Your task to perform on an android device: uninstall "NewsBreak: Local News & Alerts" Image 0: 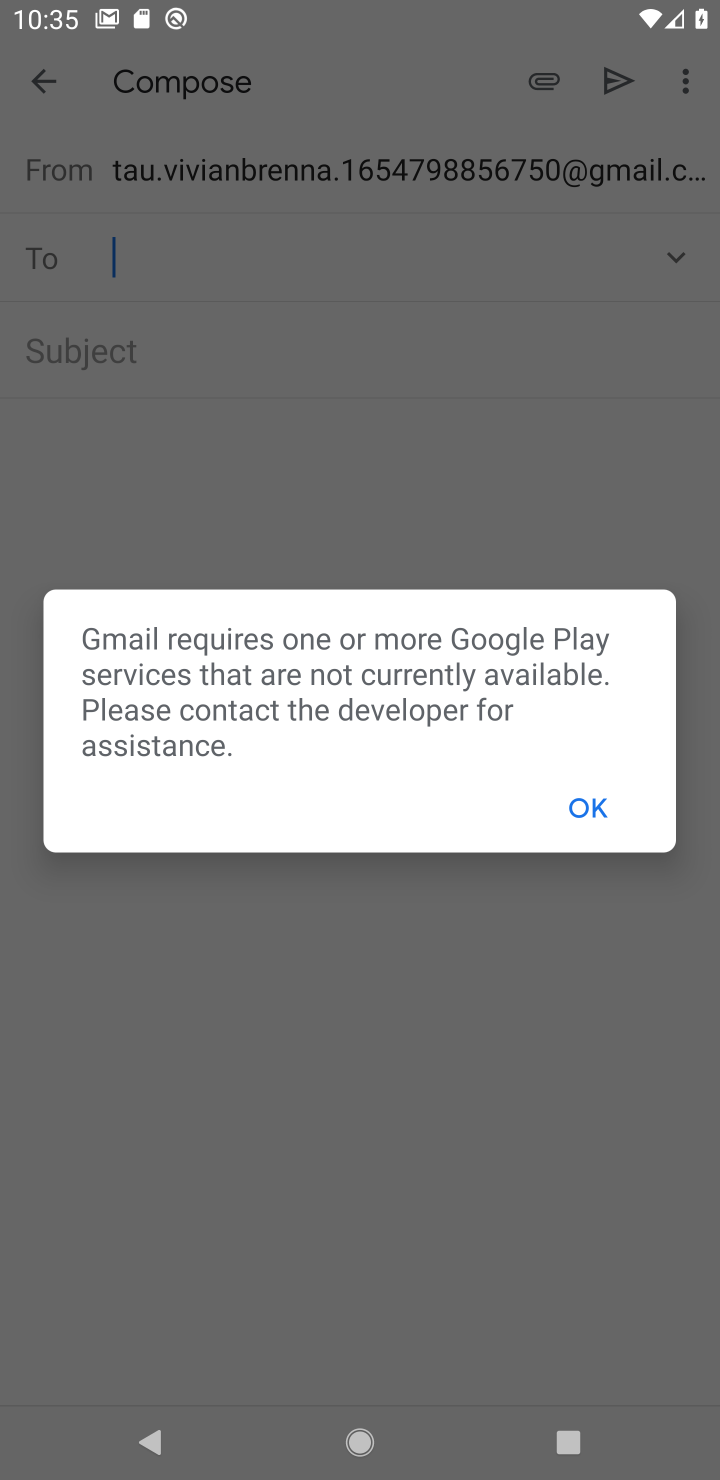
Step 0: press back button
Your task to perform on an android device: uninstall "NewsBreak: Local News & Alerts" Image 1: 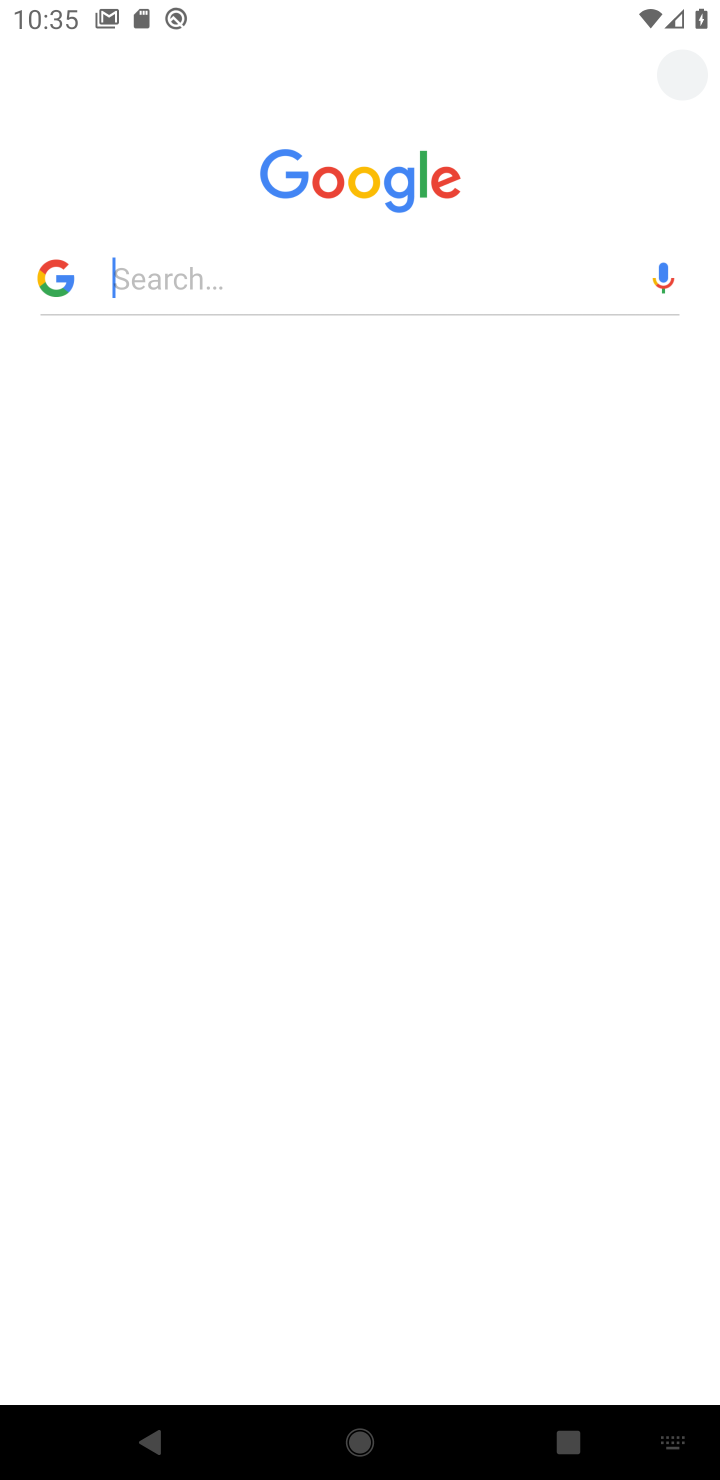
Step 1: press back button
Your task to perform on an android device: uninstall "NewsBreak: Local News & Alerts" Image 2: 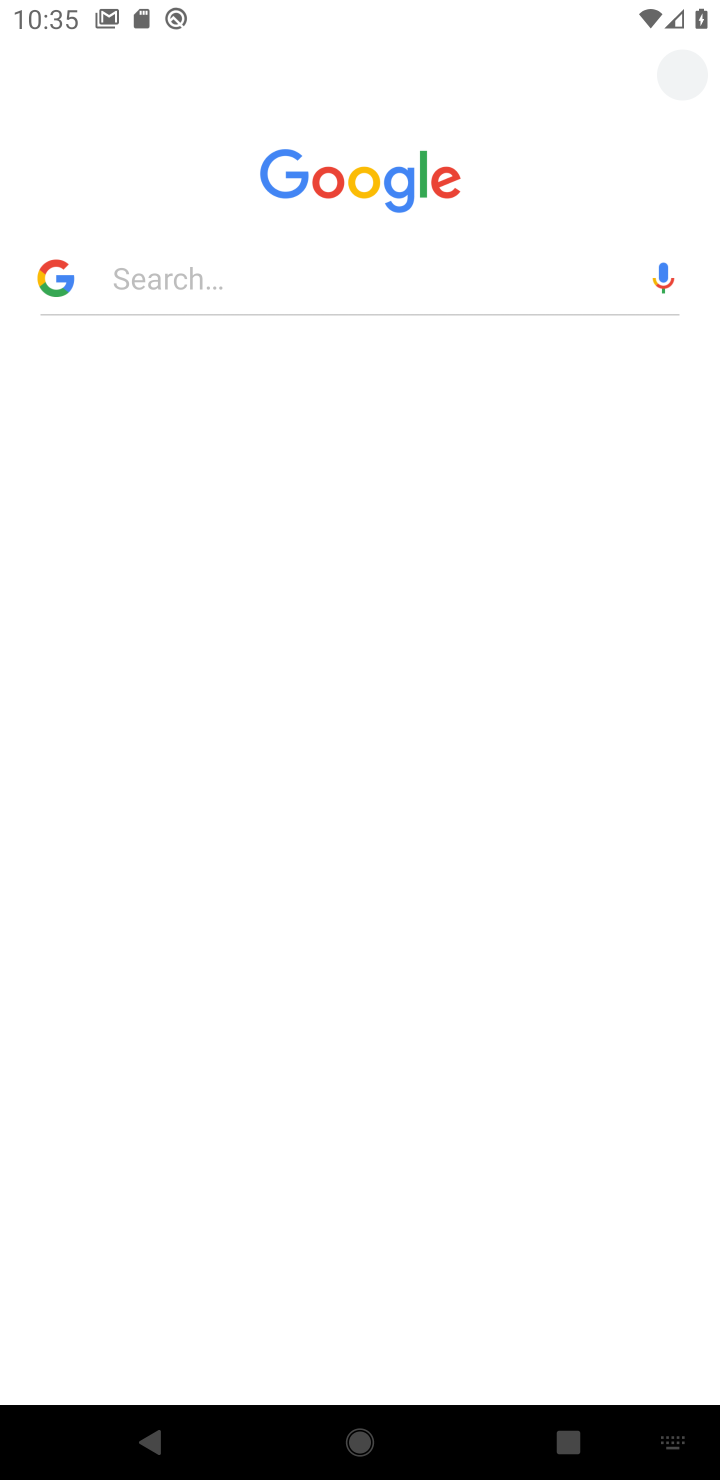
Step 2: drag from (563, 311) to (183, 271)
Your task to perform on an android device: uninstall "NewsBreak: Local News & Alerts" Image 3: 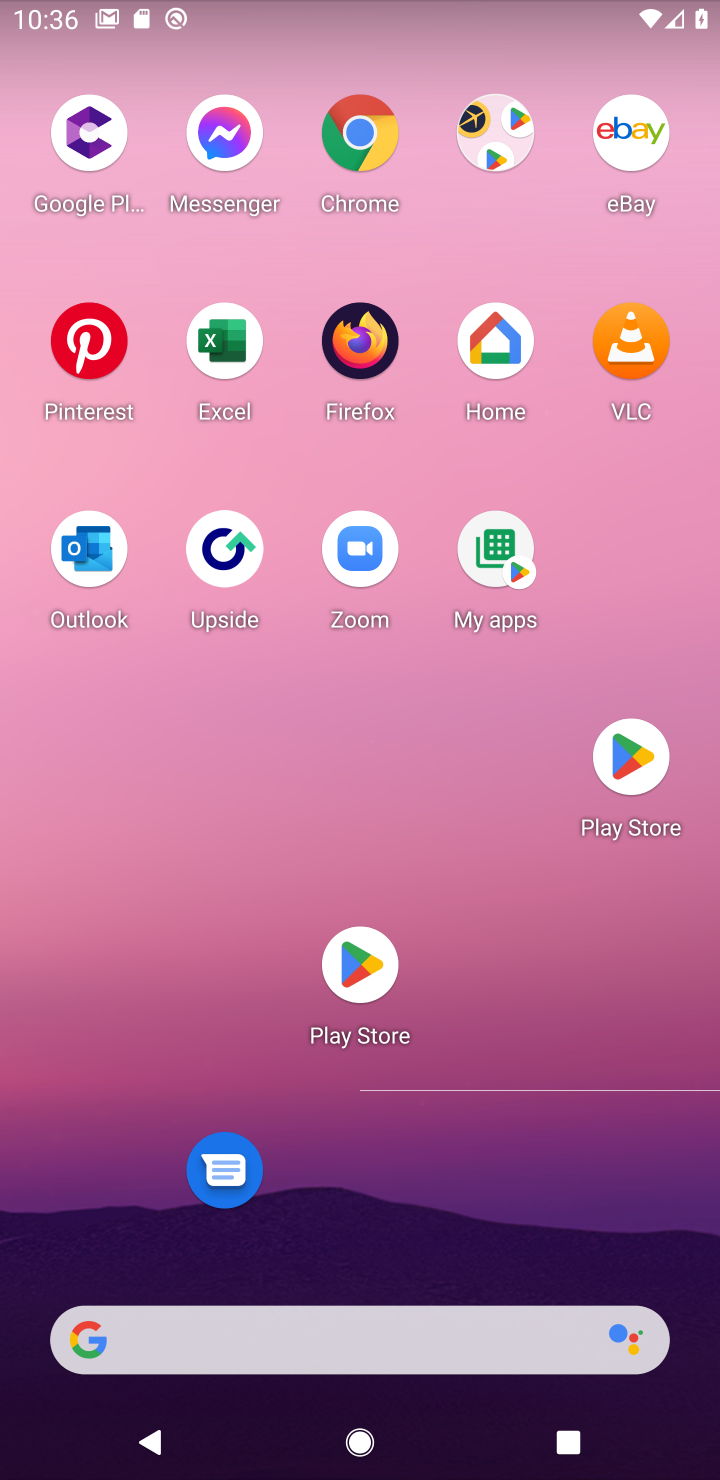
Step 3: press back button
Your task to perform on an android device: uninstall "NewsBreak: Local News & Alerts" Image 4: 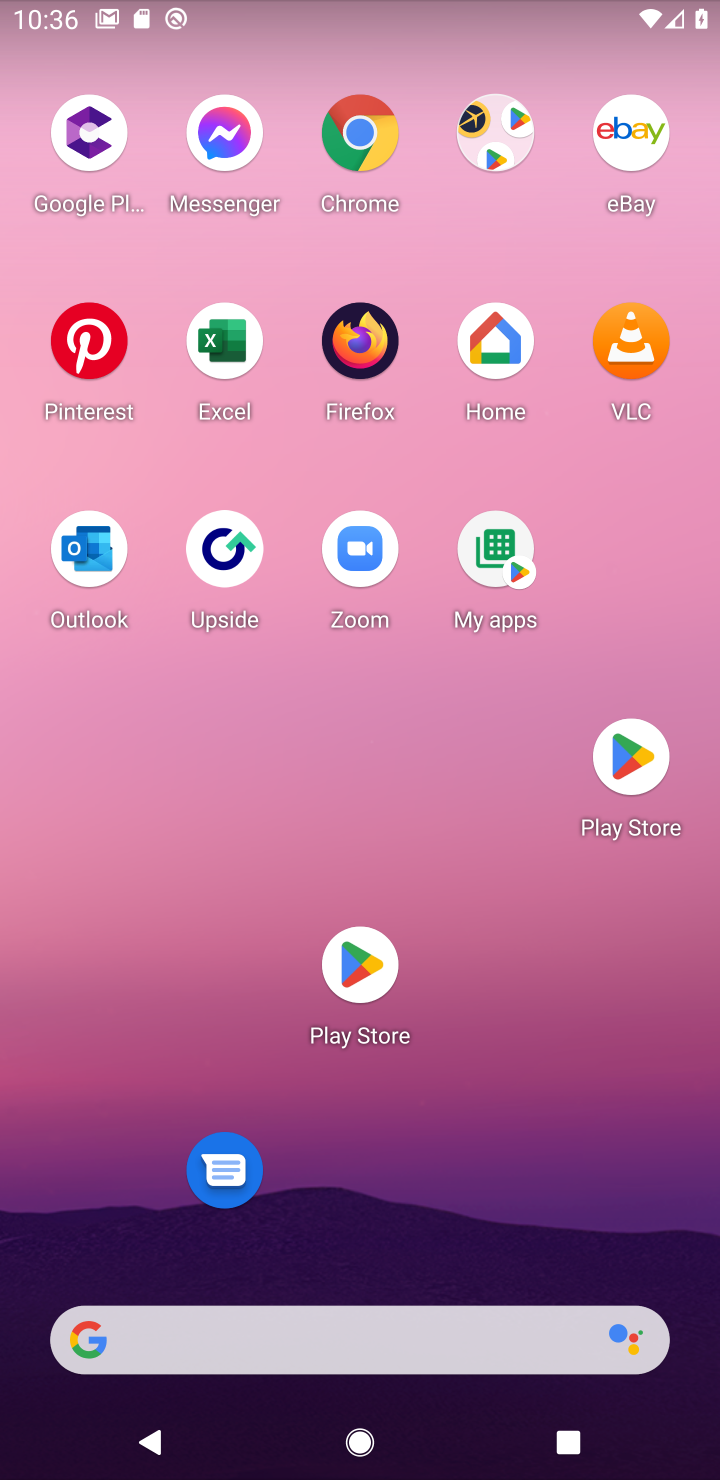
Step 4: press back button
Your task to perform on an android device: uninstall "NewsBreak: Local News & Alerts" Image 5: 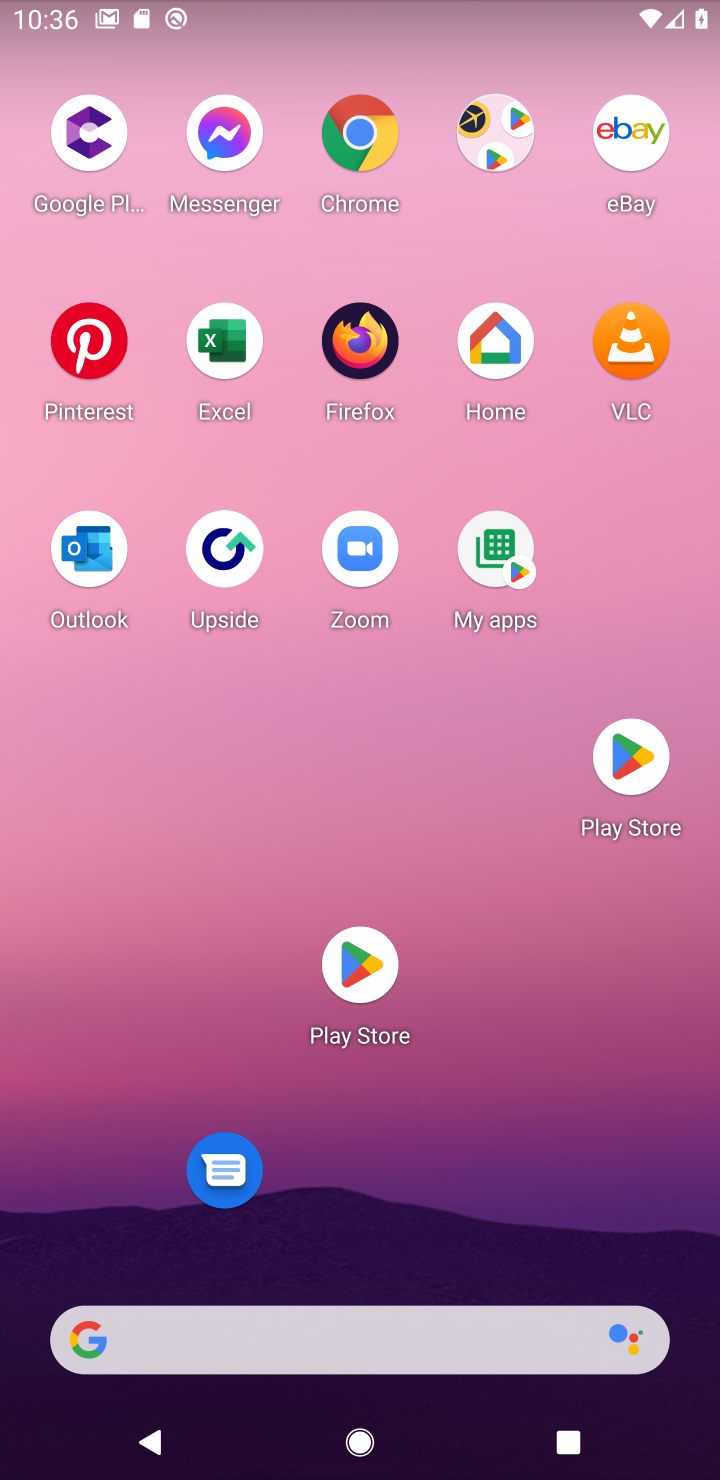
Step 5: click (232, 10)
Your task to perform on an android device: uninstall "NewsBreak: Local News & Alerts" Image 6: 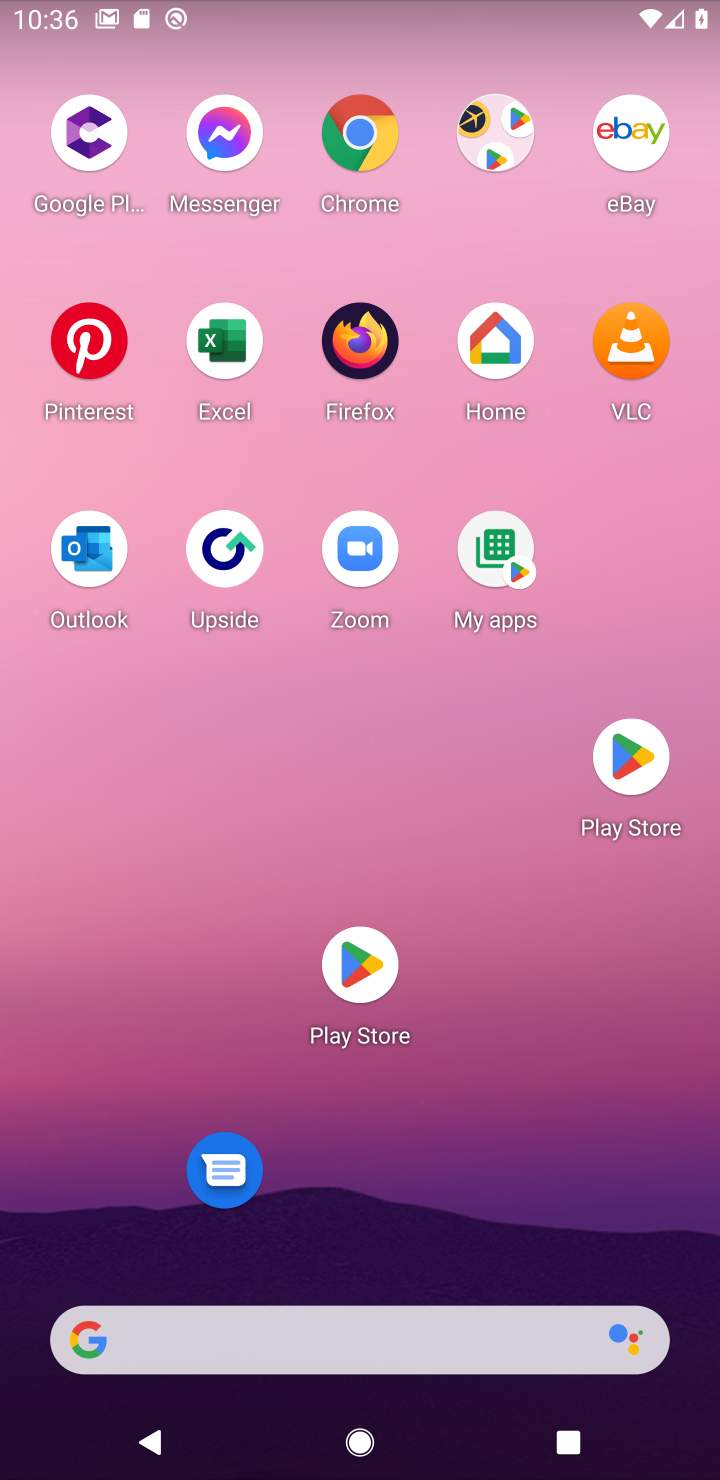
Step 6: drag from (203, 230) to (359, 43)
Your task to perform on an android device: uninstall "NewsBreak: Local News & Alerts" Image 7: 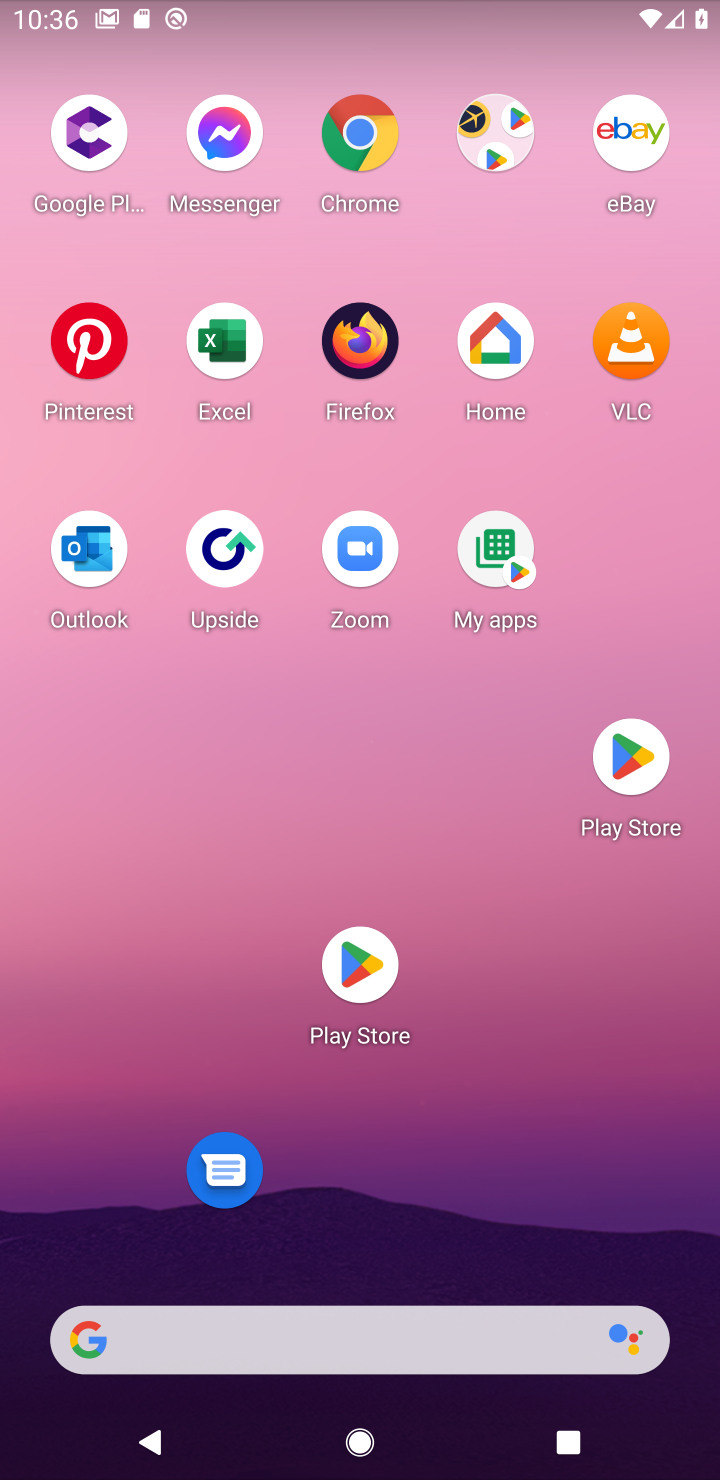
Step 7: drag from (407, 265) to (407, 394)
Your task to perform on an android device: uninstall "NewsBreak: Local News & Alerts" Image 8: 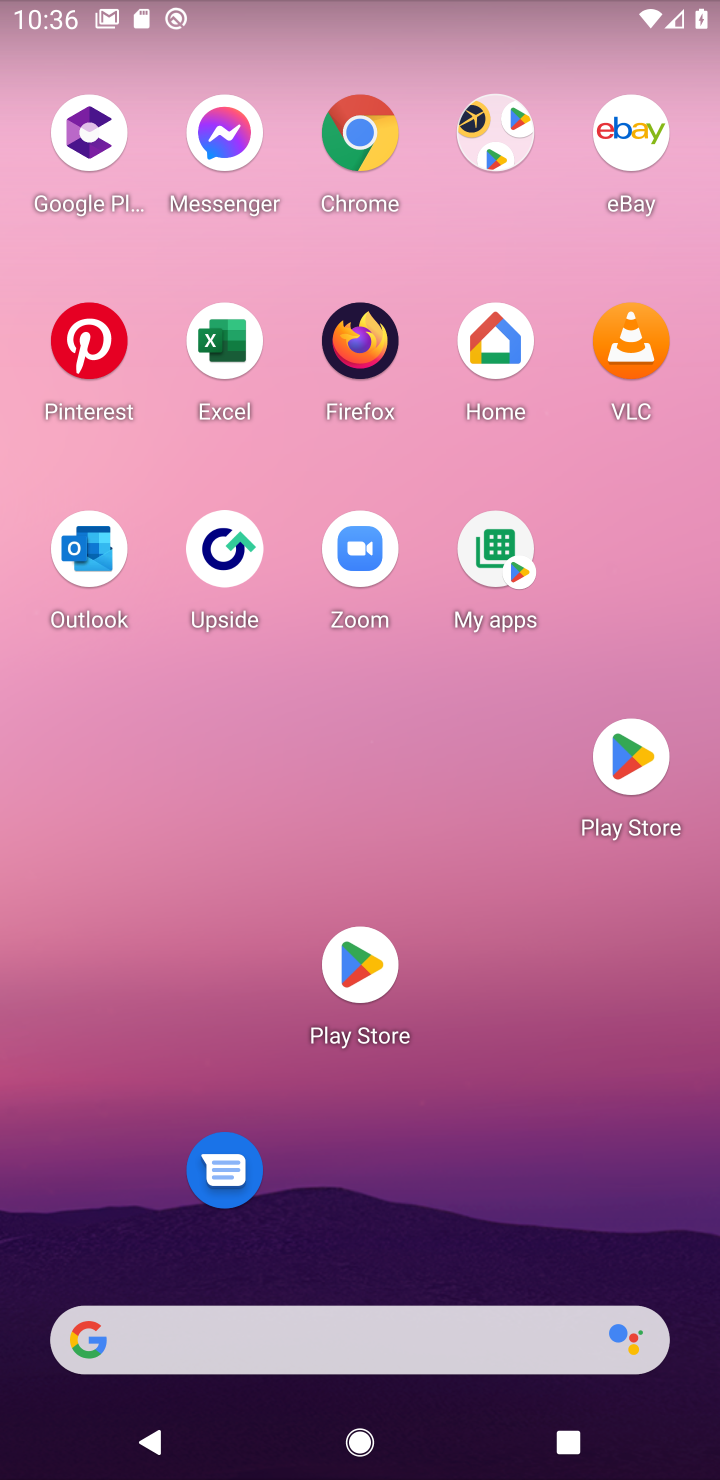
Step 8: click (347, 973)
Your task to perform on an android device: uninstall "NewsBreak: Local News & Alerts" Image 9: 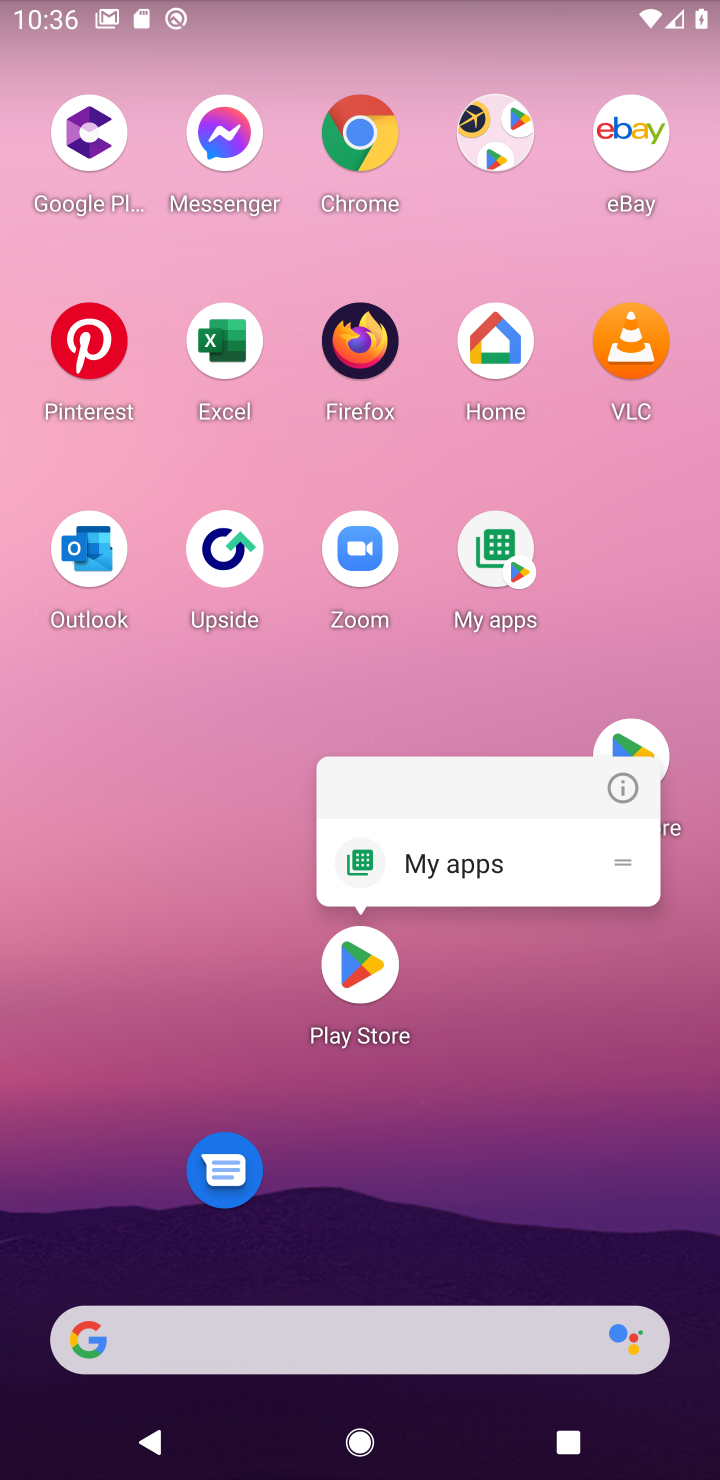
Step 9: click (349, 966)
Your task to perform on an android device: uninstall "NewsBreak: Local News & Alerts" Image 10: 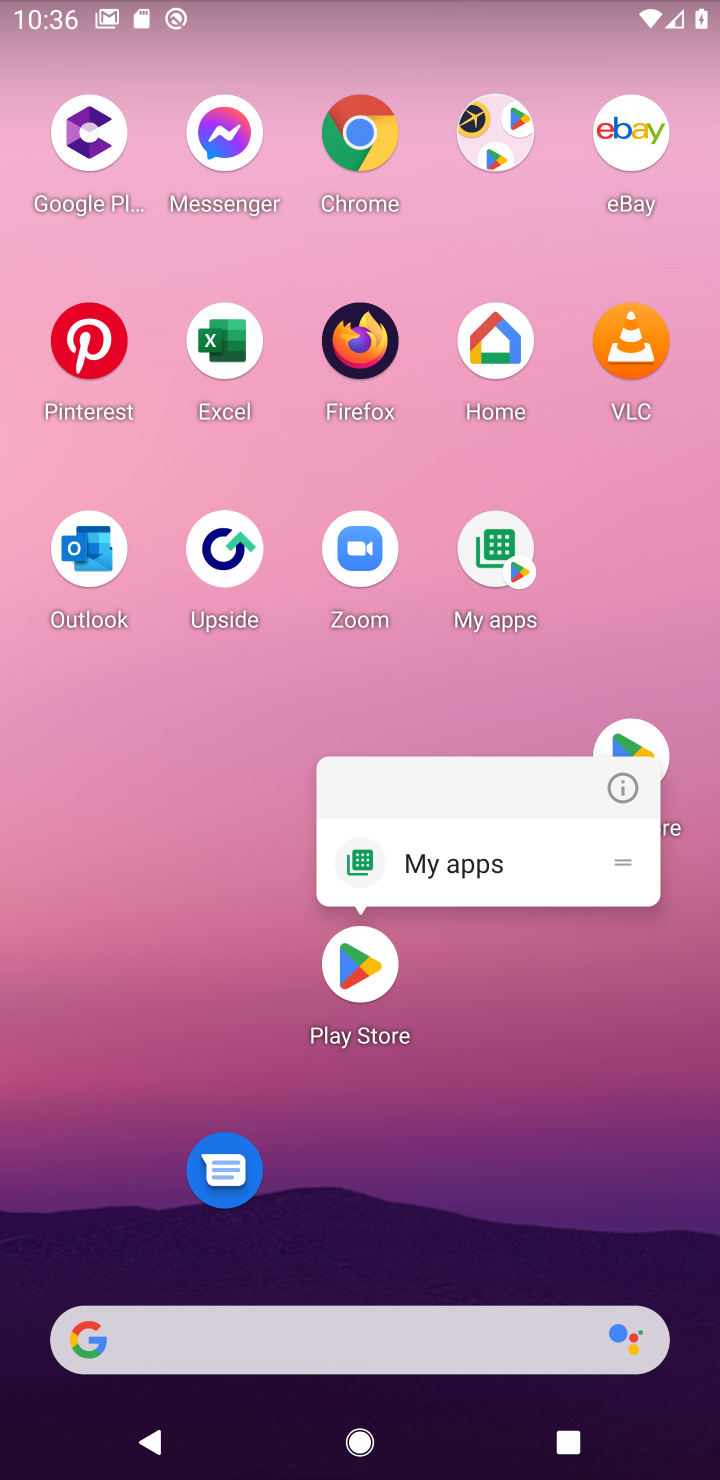
Step 10: click (417, 872)
Your task to perform on an android device: uninstall "NewsBreak: Local News & Alerts" Image 11: 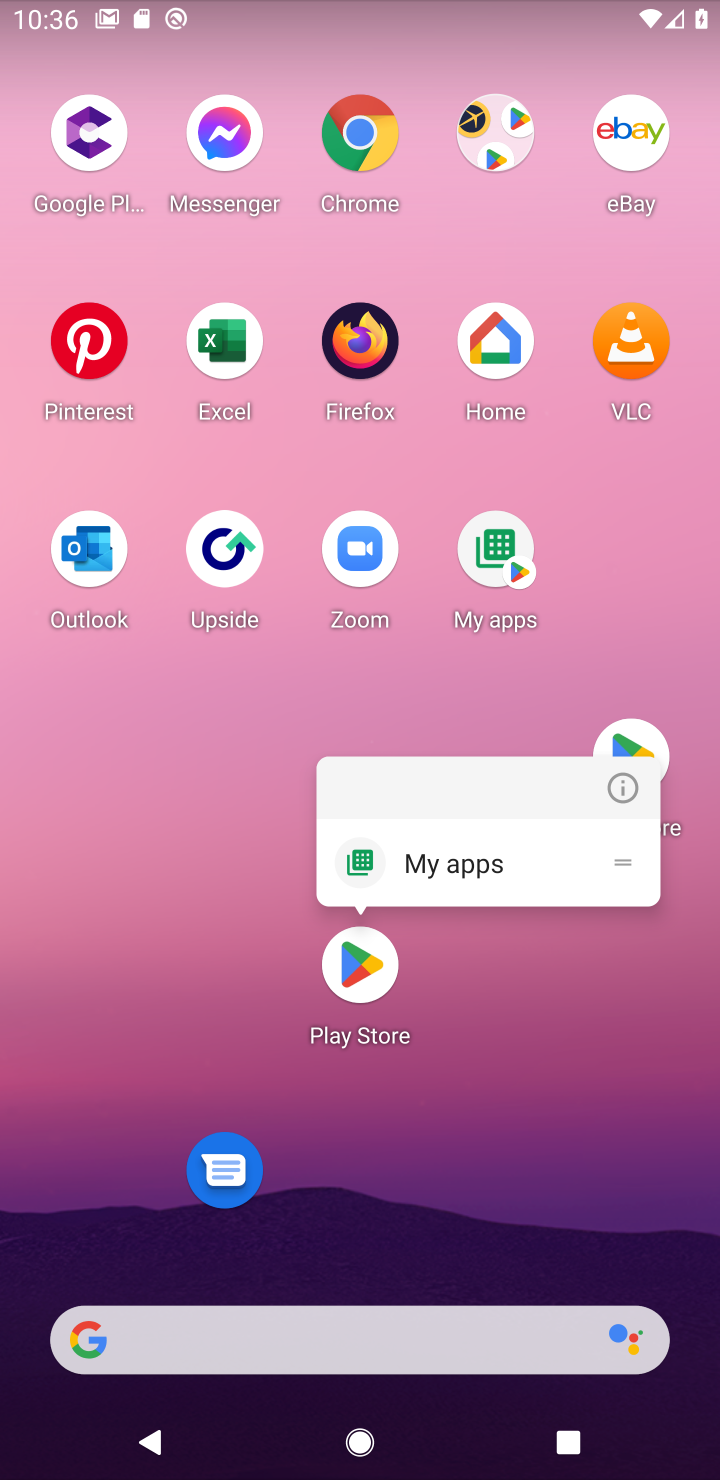
Step 11: click (421, 867)
Your task to perform on an android device: uninstall "NewsBreak: Local News & Alerts" Image 12: 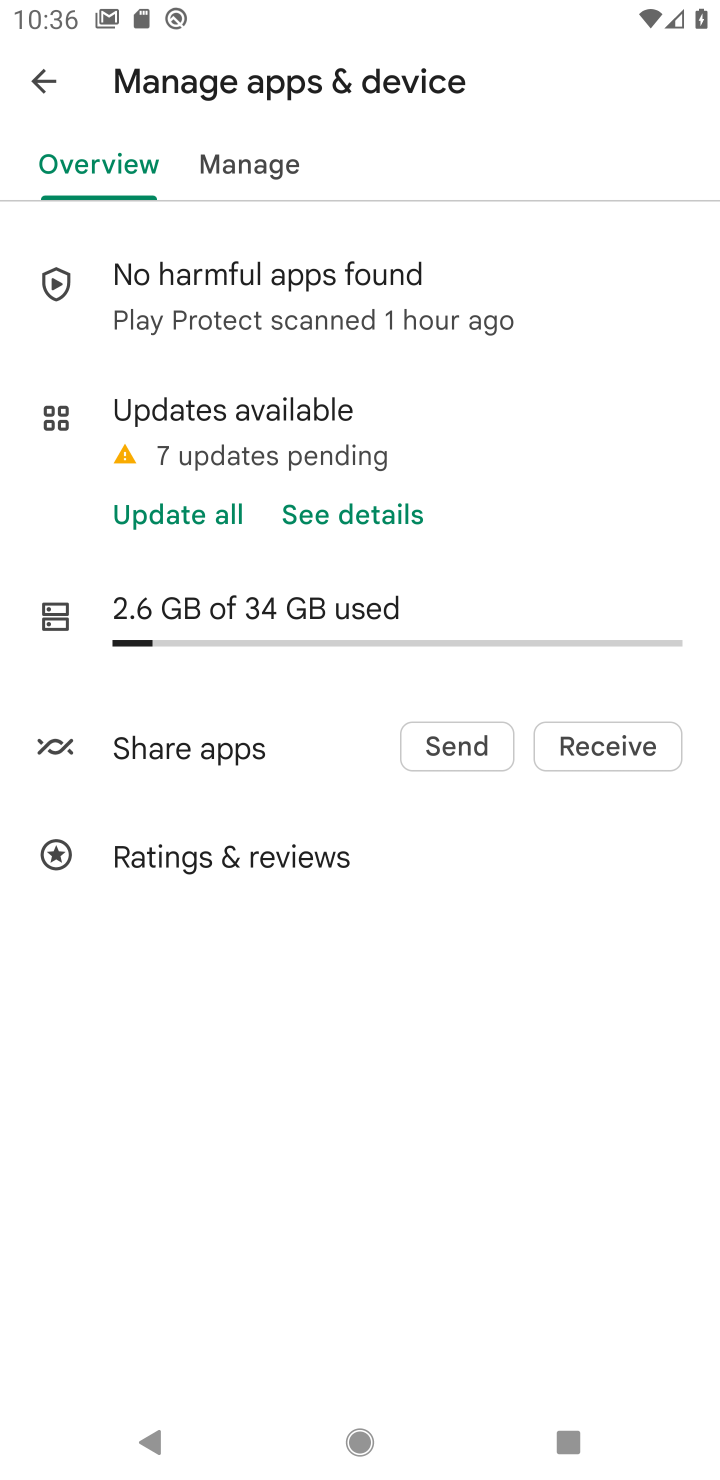
Step 12: click (34, 83)
Your task to perform on an android device: uninstall "NewsBreak: Local News & Alerts" Image 13: 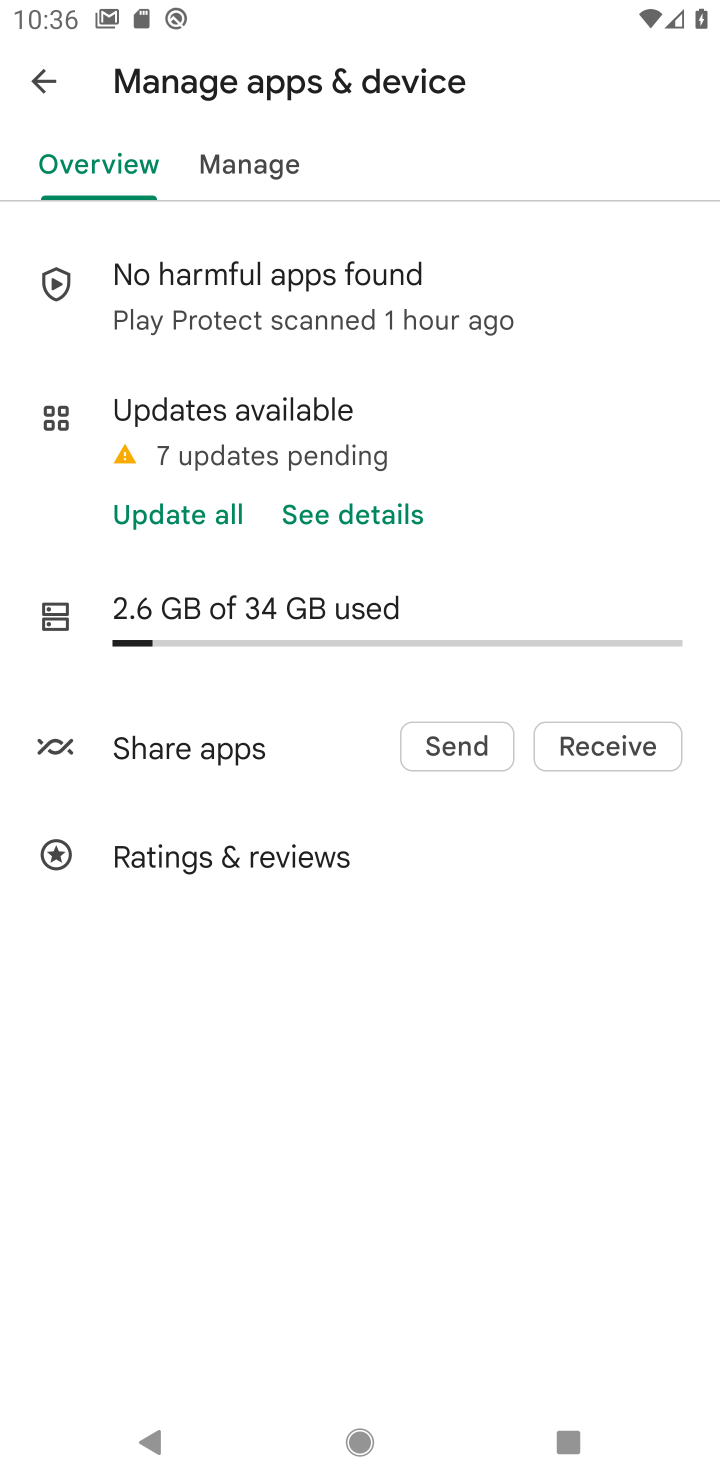
Step 13: click (34, 83)
Your task to perform on an android device: uninstall "NewsBreak: Local News & Alerts" Image 14: 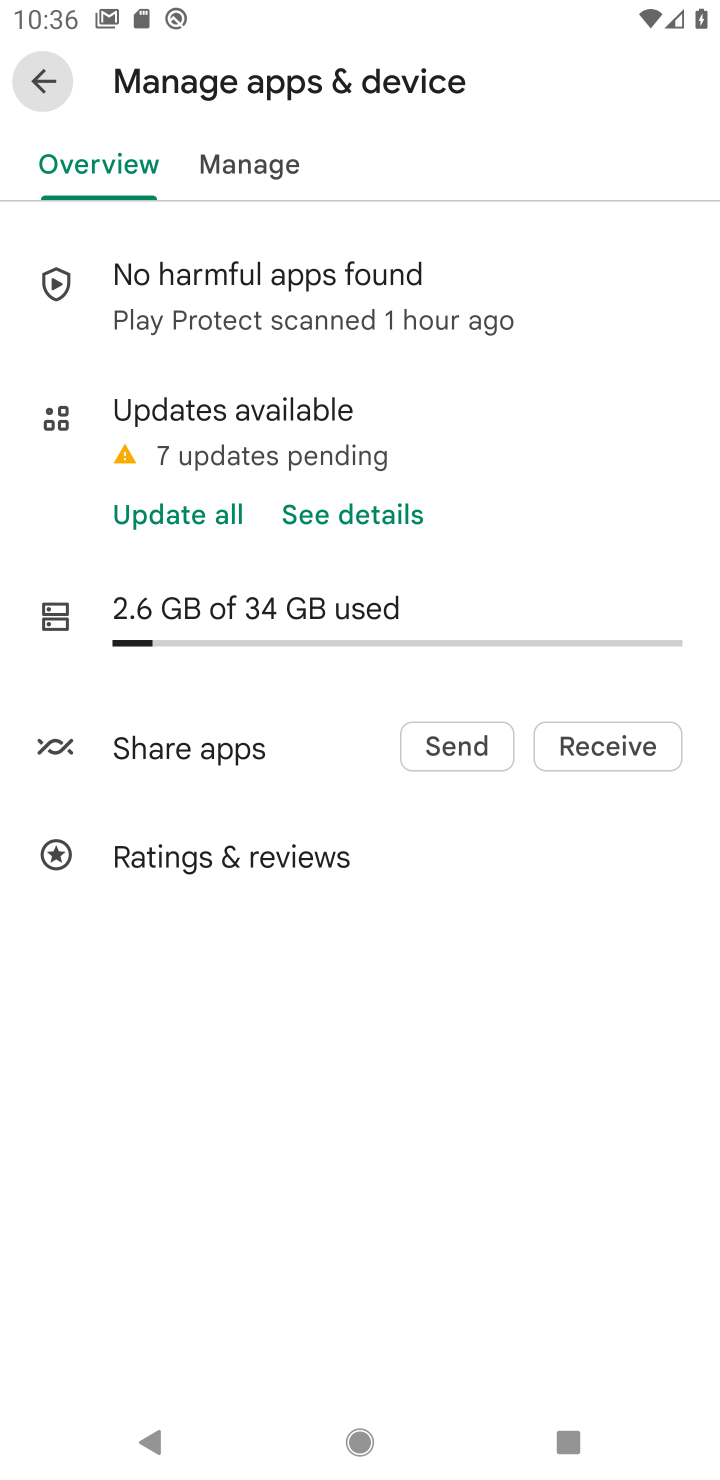
Step 14: click (34, 83)
Your task to perform on an android device: uninstall "NewsBreak: Local News & Alerts" Image 15: 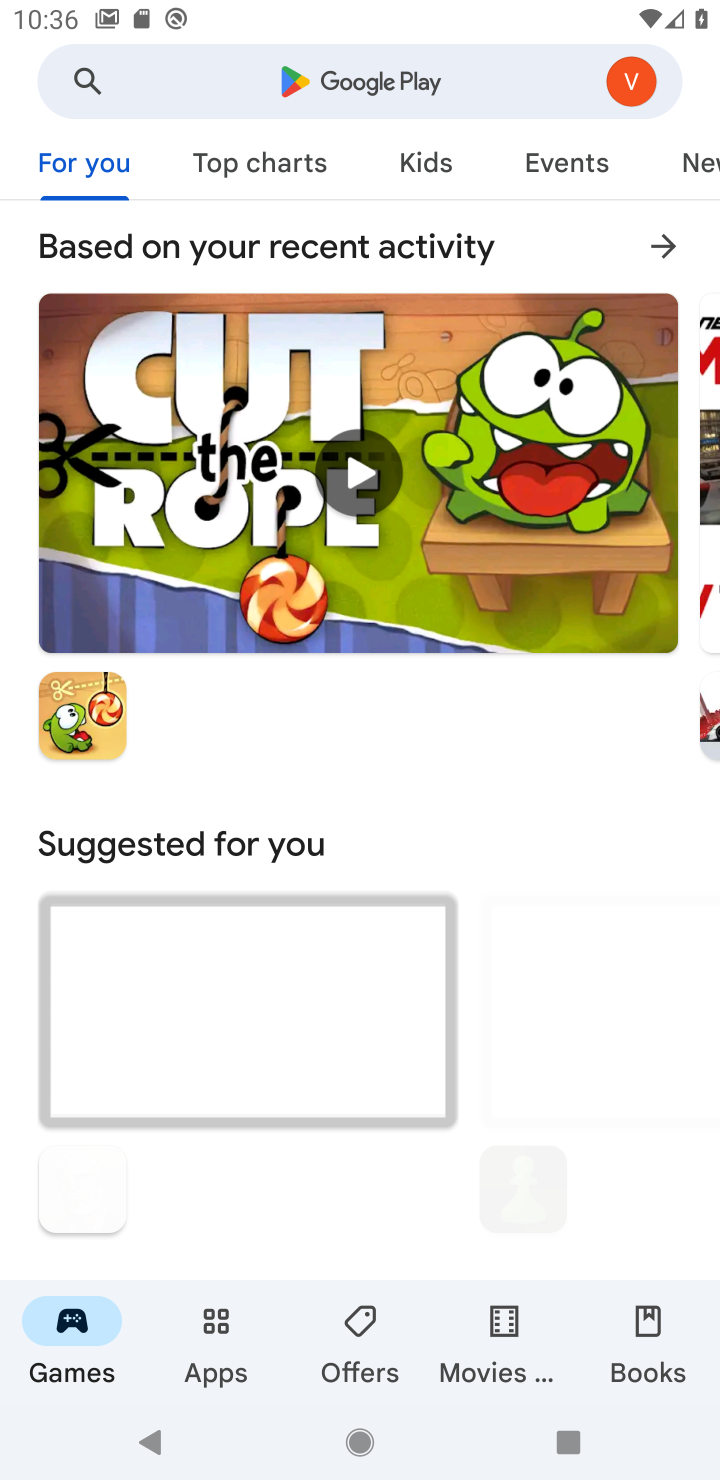
Step 15: click (300, 83)
Your task to perform on an android device: uninstall "NewsBreak: Local News & Alerts" Image 16: 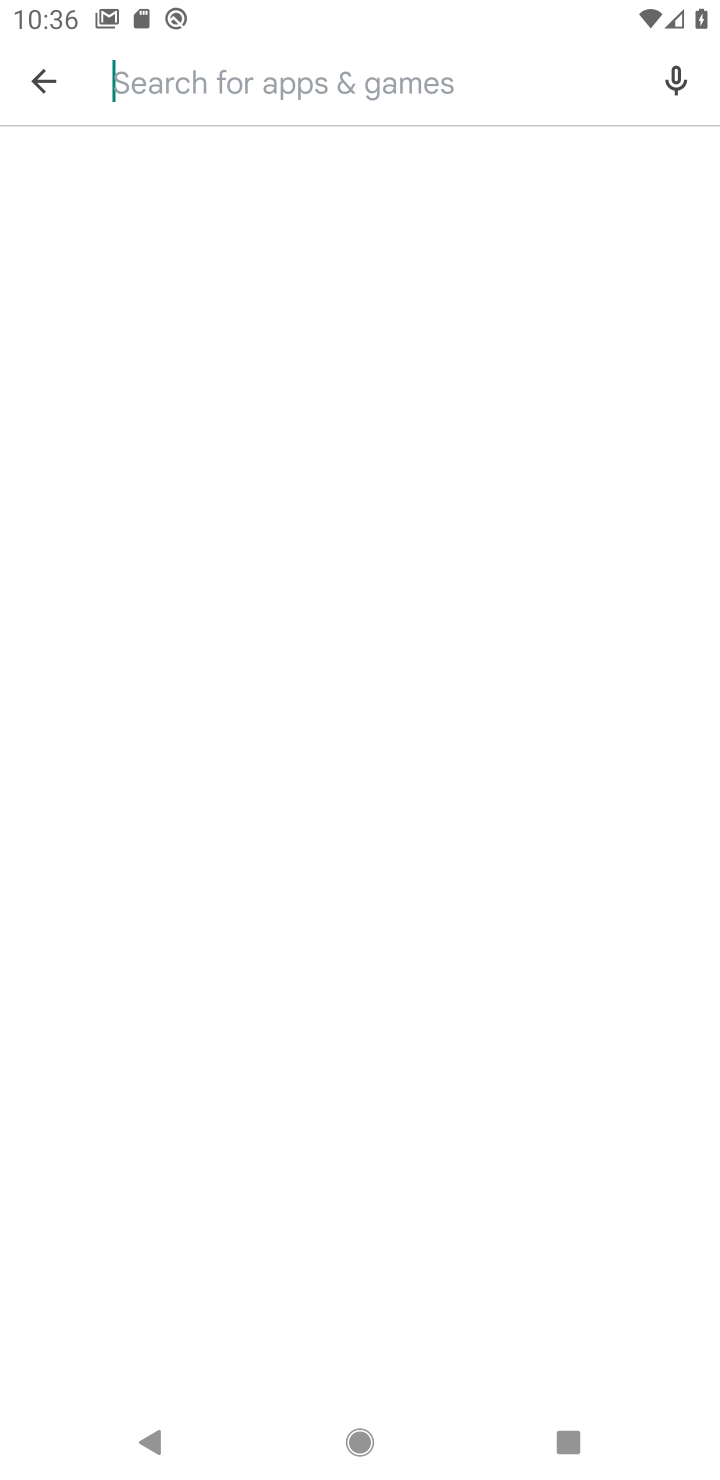
Step 16: click (156, 78)
Your task to perform on an android device: uninstall "NewsBreak: Local News & Alerts" Image 17: 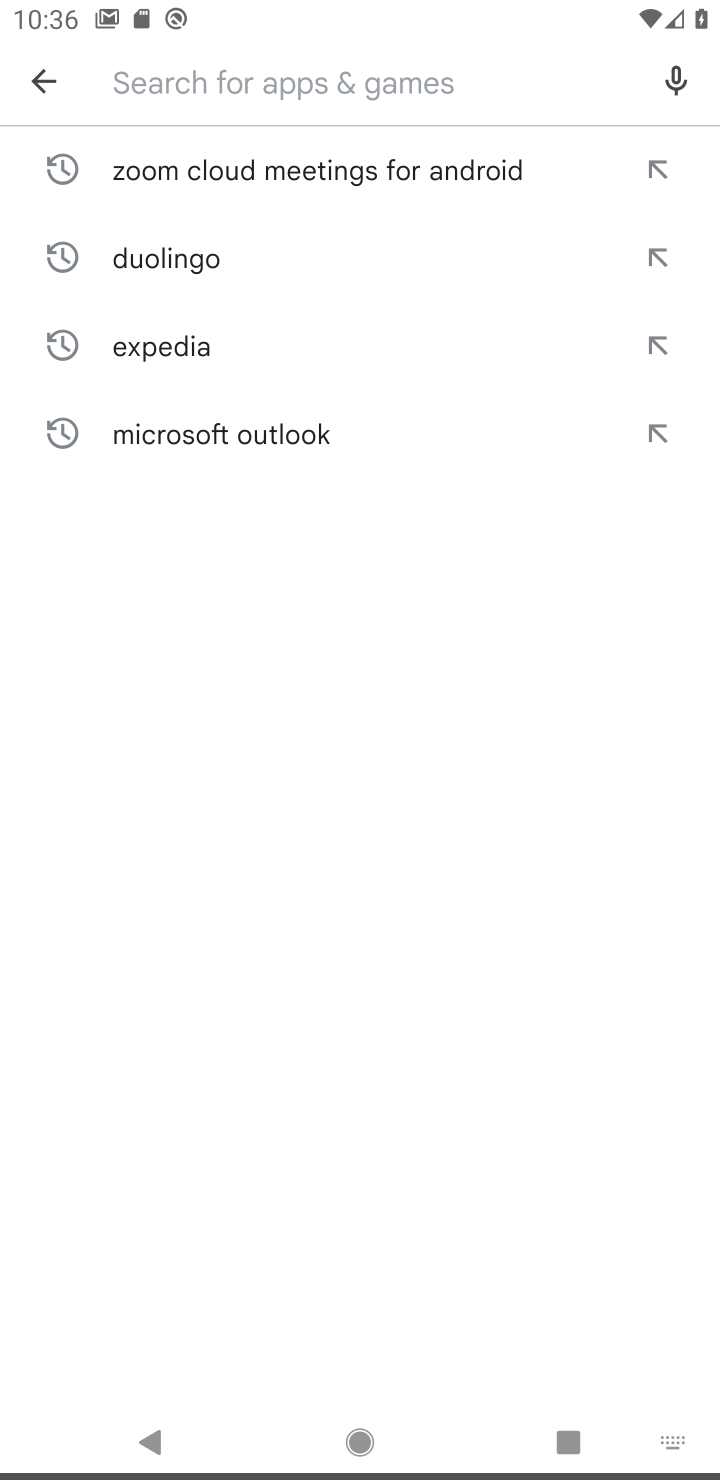
Step 17: click (156, 78)
Your task to perform on an android device: uninstall "NewsBreak: Local News & Alerts" Image 18: 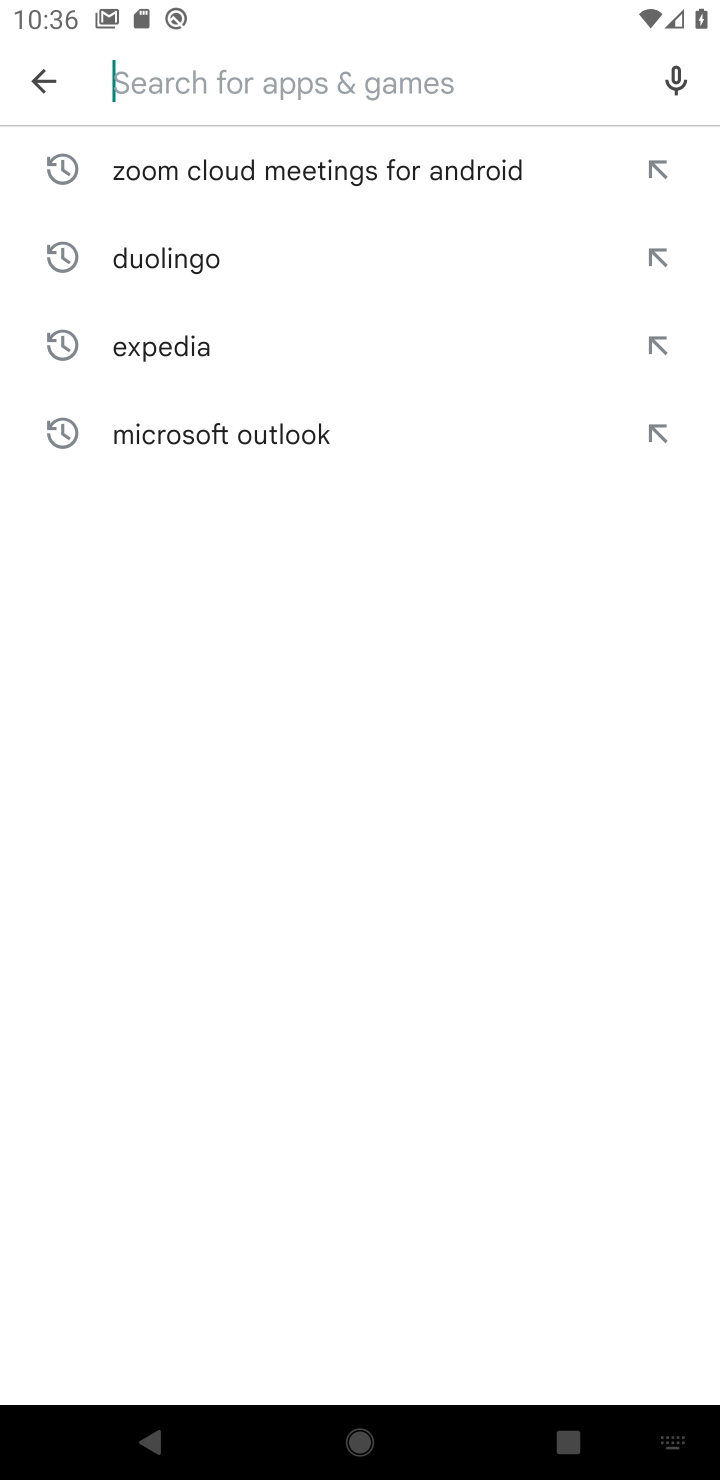
Step 18: type "newsbreak"
Your task to perform on an android device: uninstall "NewsBreak: Local News & Alerts" Image 19: 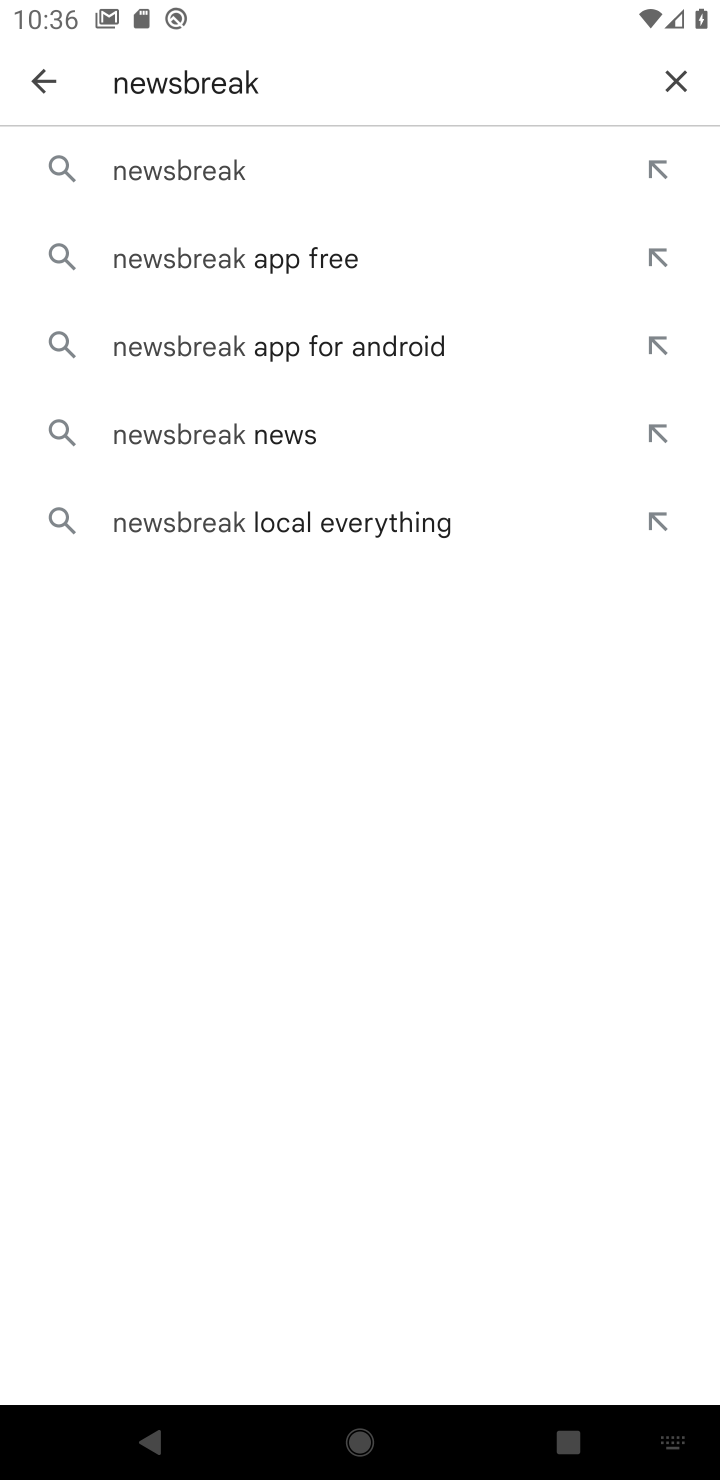
Step 19: click (151, 163)
Your task to perform on an android device: uninstall "NewsBreak: Local News & Alerts" Image 20: 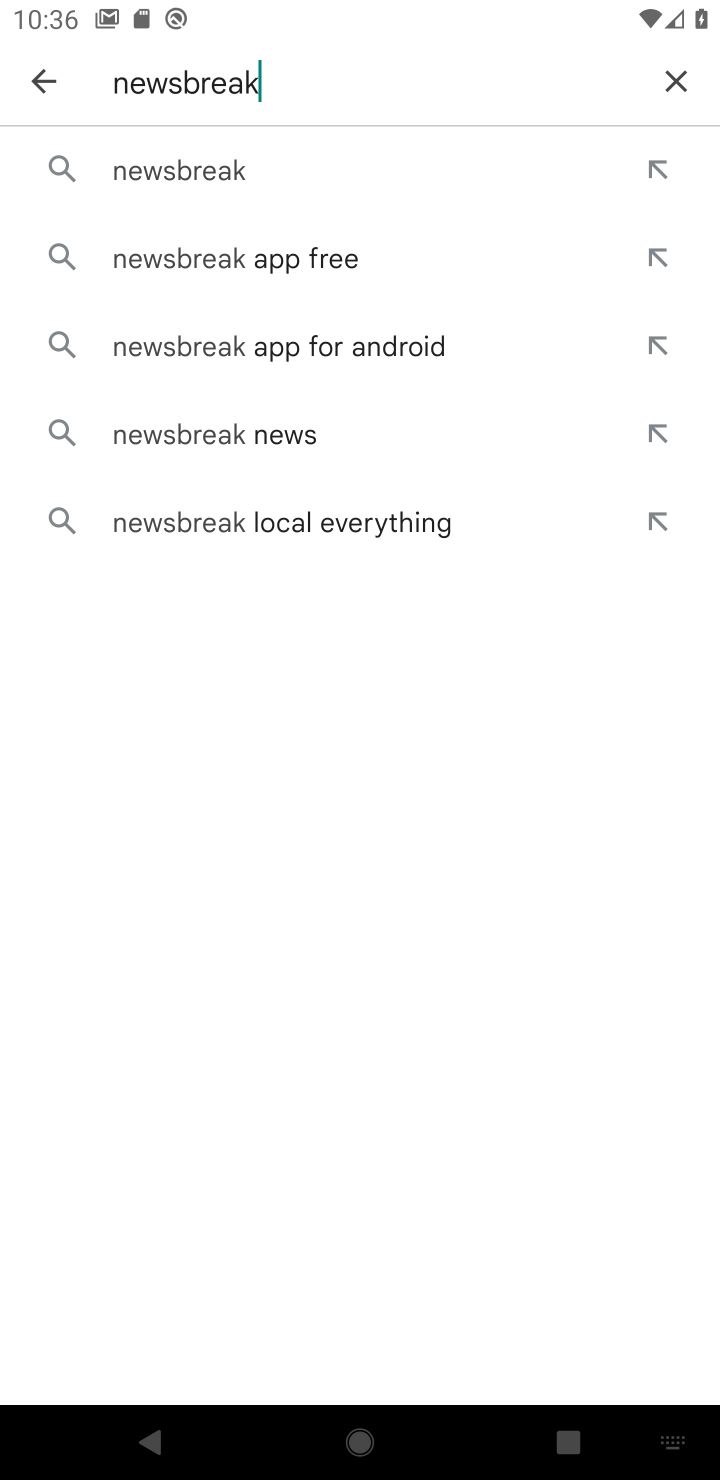
Step 20: click (177, 165)
Your task to perform on an android device: uninstall "NewsBreak: Local News & Alerts" Image 21: 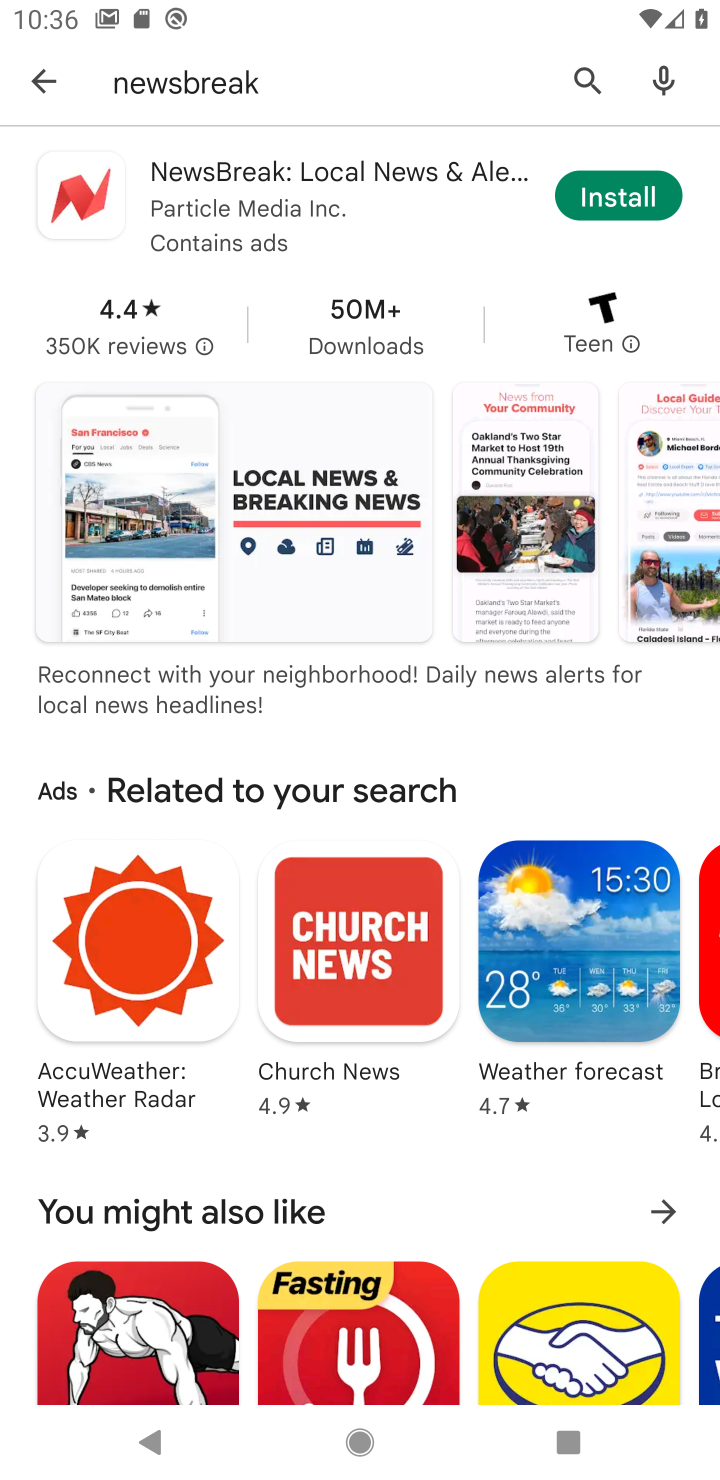
Step 21: click (606, 203)
Your task to perform on an android device: uninstall "NewsBreak: Local News & Alerts" Image 22: 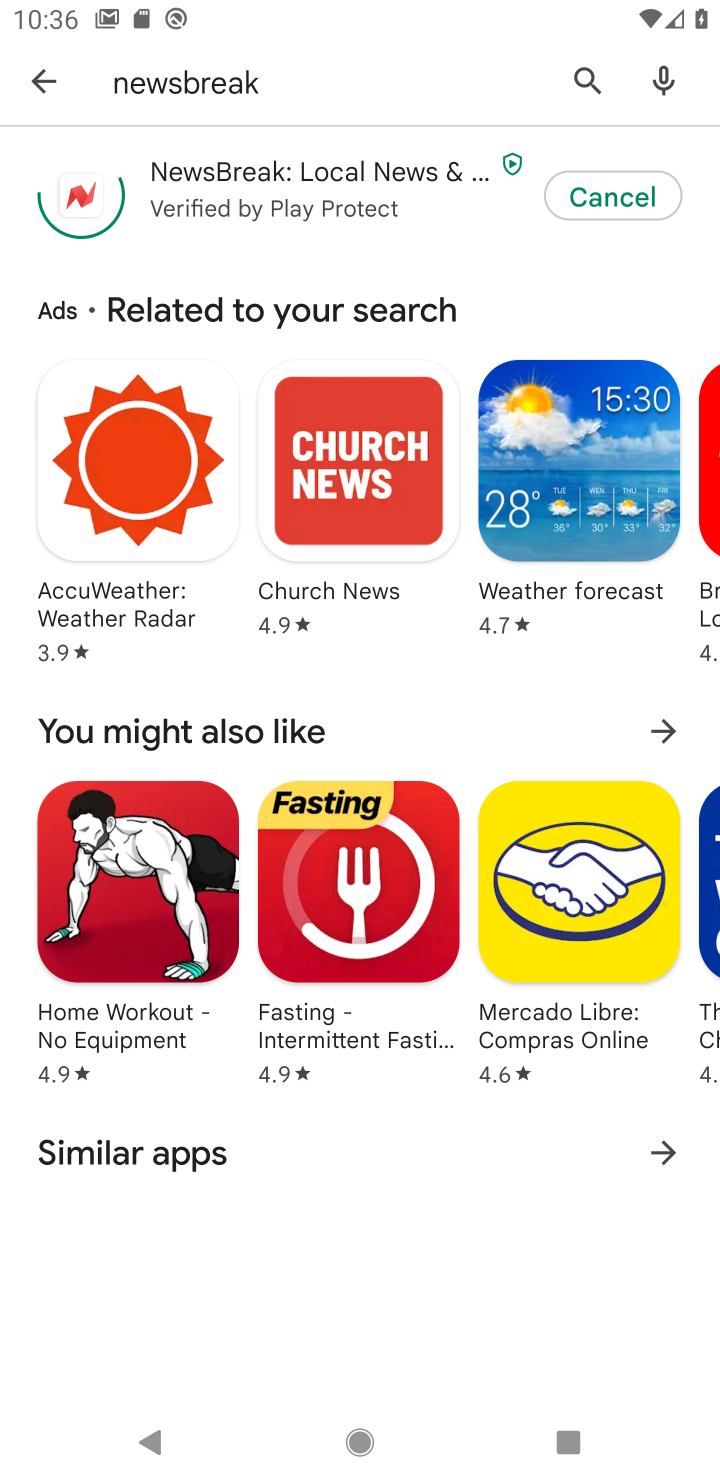
Step 22: click (615, 189)
Your task to perform on an android device: uninstall "NewsBreak: Local News & Alerts" Image 23: 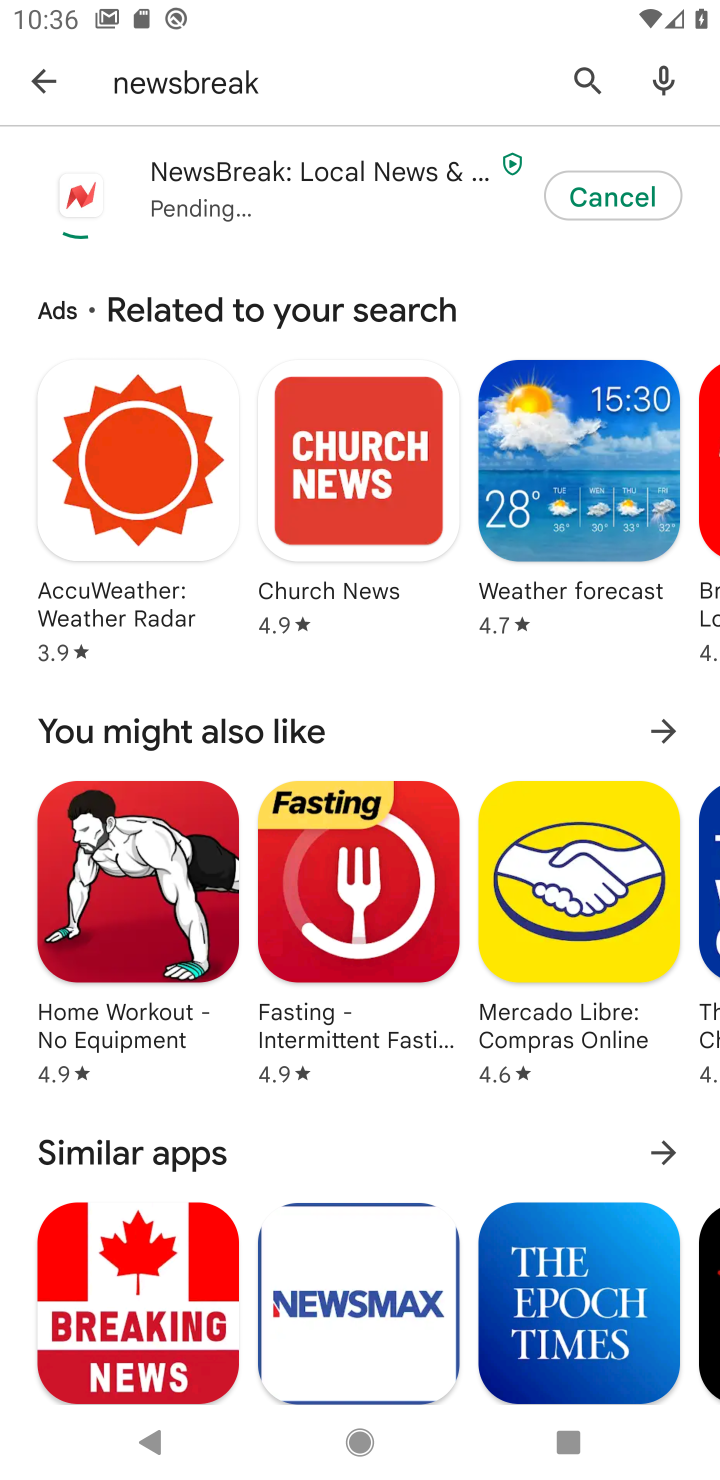
Step 23: click (626, 197)
Your task to perform on an android device: uninstall "NewsBreak: Local News & Alerts" Image 24: 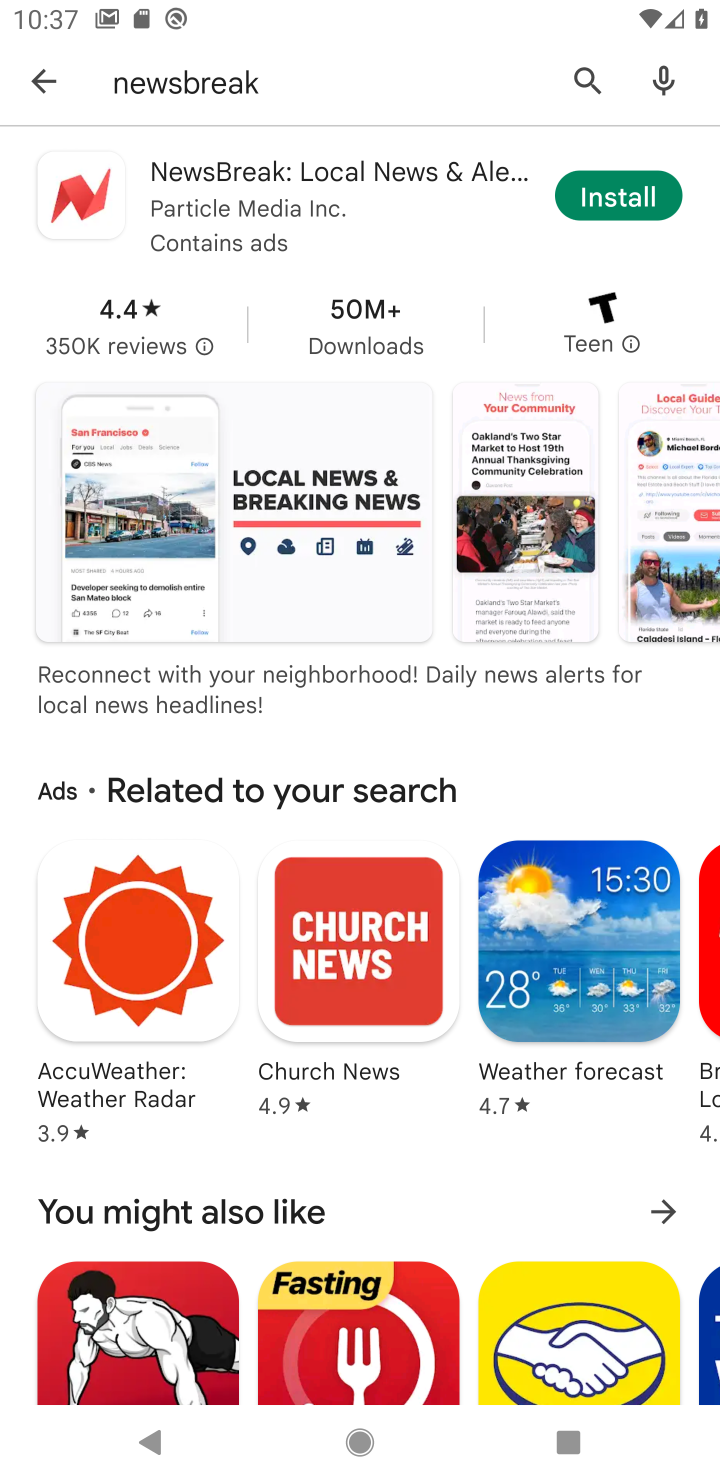
Step 24: task complete